Your task to perform on an android device: delete a single message in the gmail app Image 0: 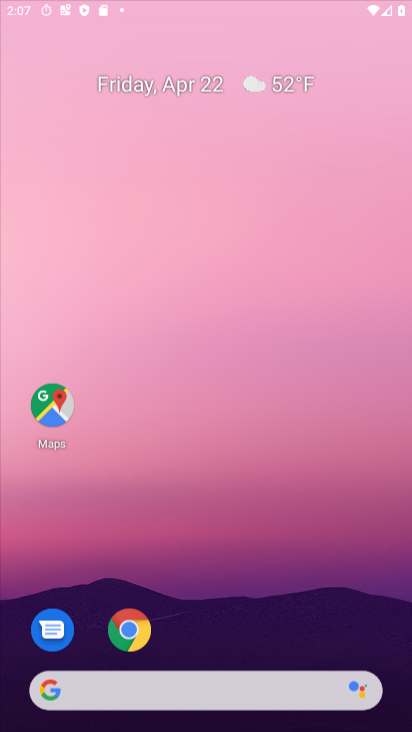
Step 0: click (291, 99)
Your task to perform on an android device: delete a single message in the gmail app Image 1: 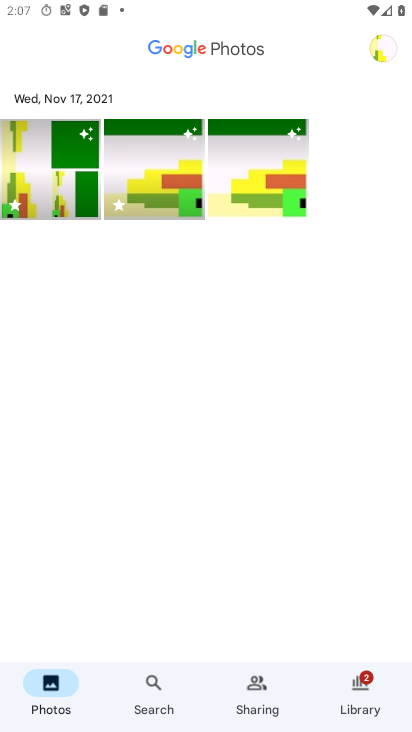
Step 1: press home button
Your task to perform on an android device: delete a single message in the gmail app Image 2: 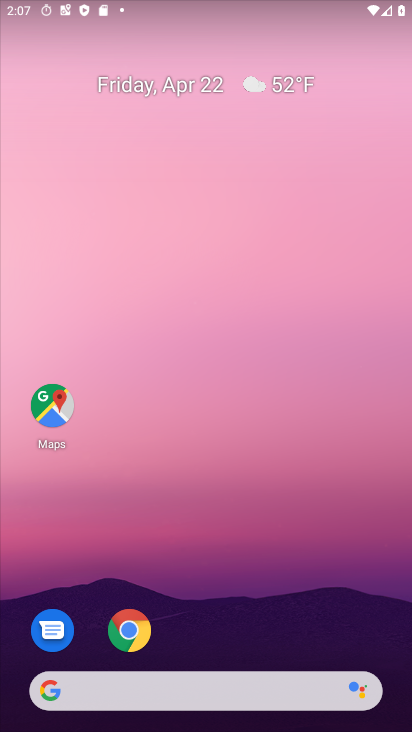
Step 2: drag from (385, 632) to (319, 205)
Your task to perform on an android device: delete a single message in the gmail app Image 3: 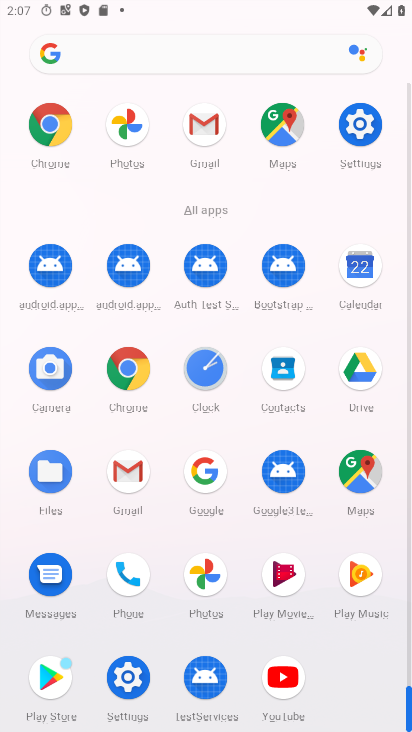
Step 3: click (128, 473)
Your task to perform on an android device: delete a single message in the gmail app Image 4: 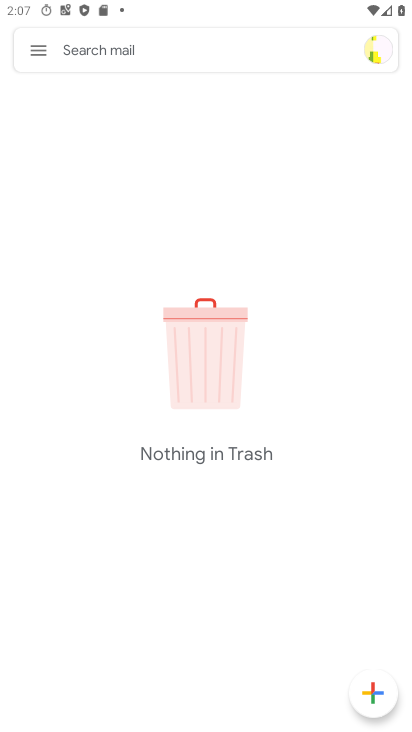
Step 4: click (39, 49)
Your task to perform on an android device: delete a single message in the gmail app Image 5: 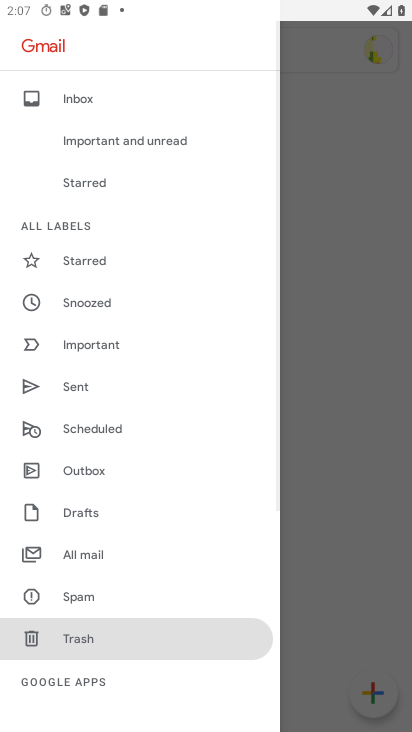
Step 5: click (77, 100)
Your task to perform on an android device: delete a single message in the gmail app Image 6: 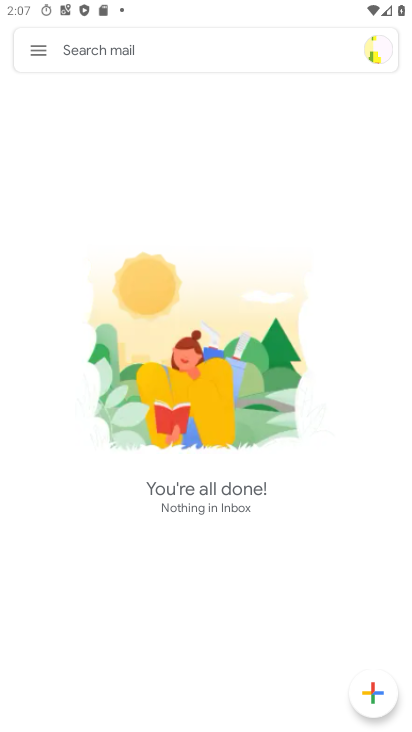
Step 6: task complete